Your task to perform on an android device: check battery use Image 0: 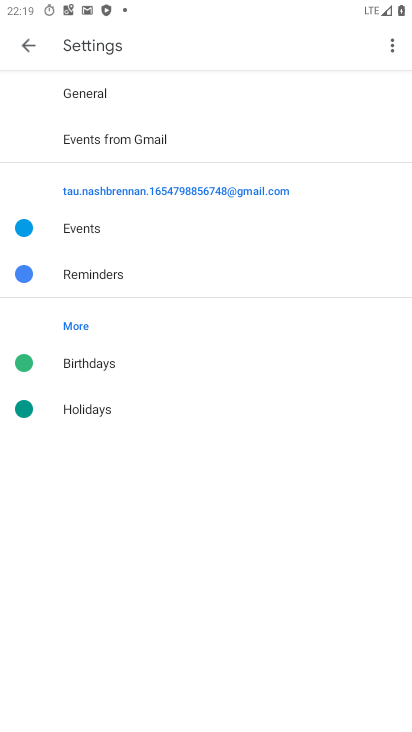
Step 0: press home button
Your task to perform on an android device: check battery use Image 1: 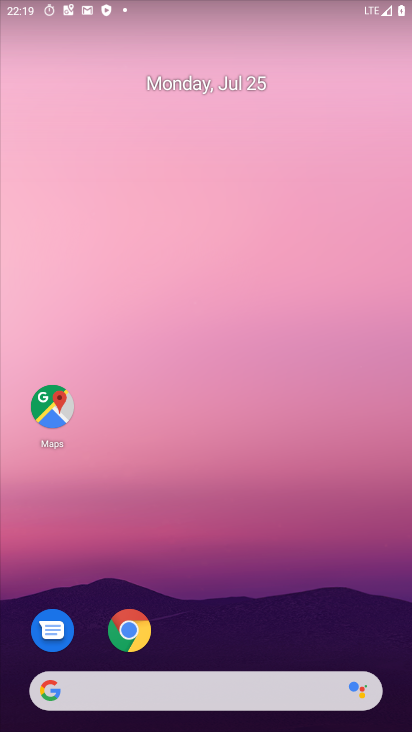
Step 1: drag from (255, 571) to (263, 148)
Your task to perform on an android device: check battery use Image 2: 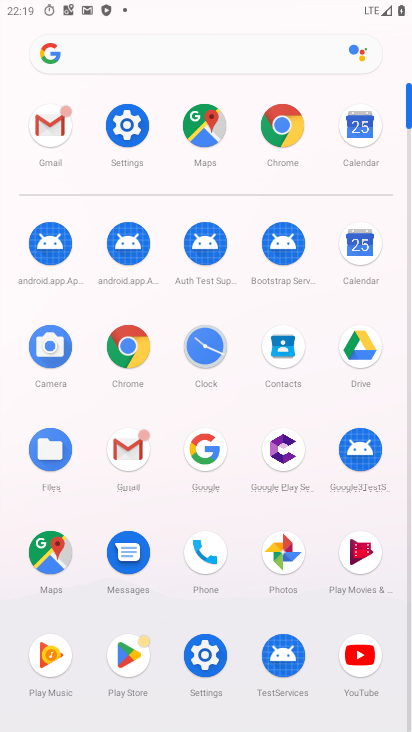
Step 2: click (133, 124)
Your task to perform on an android device: check battery use Image 3: 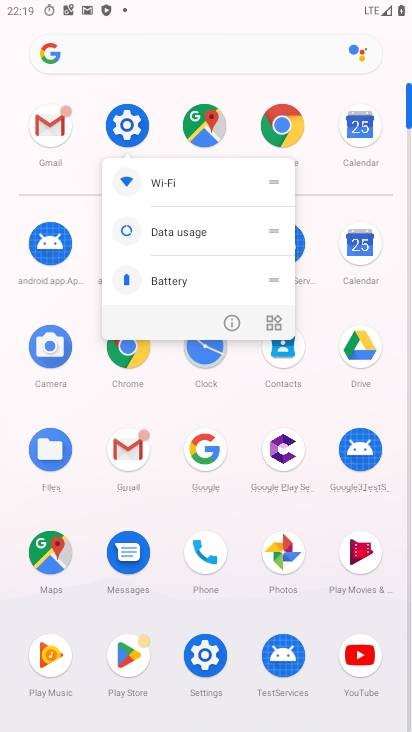
Step 3: click (115, 120)
Your task to perform on an android device: check battery use Image 4: 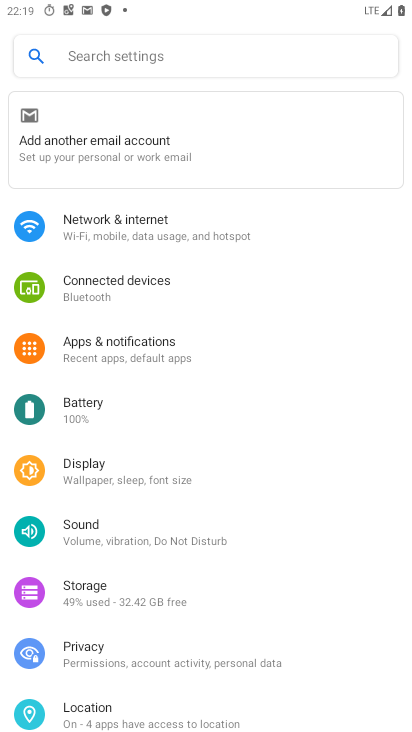
Step 4: click (112, 417)
Your task to perform on an android device: check battery use Image 5: 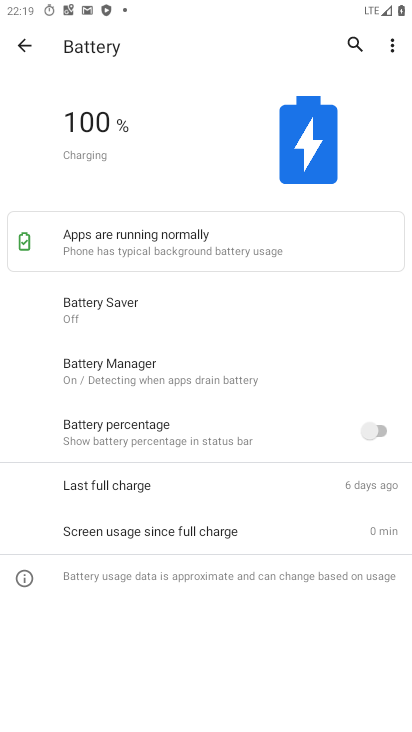
Step 5: task complete